Your task to perform on an android device: toggle notification dots Image 0: 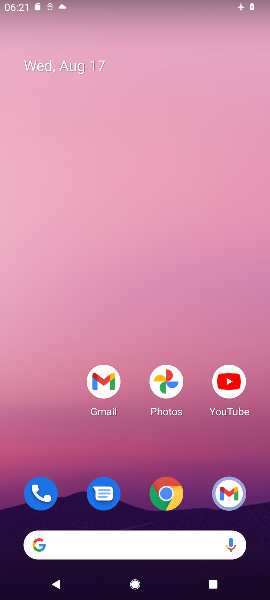
Step 0: press home button
Your task to perform on an android device: toggle notification dots Image 1: 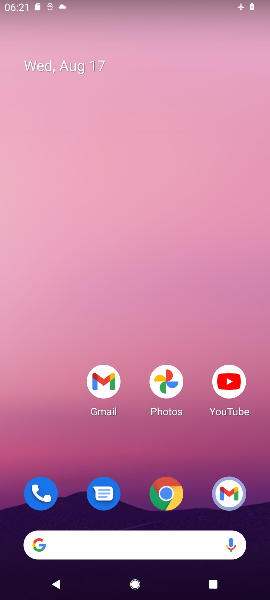
Step 1: drag from (138, 506) to (175, 67)
Your task to perform on an android device: toggle notification dots Image 2: 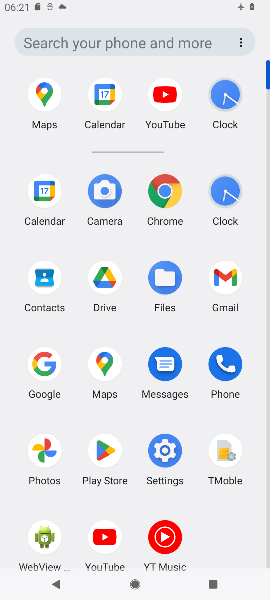
Step 2: click (163, 454)
Your task to perform on an android device: toggle notification dots Image 3: 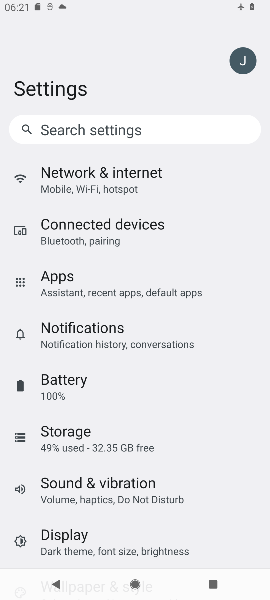
Step 3: click (67, 336)
Your task to perform on an android device: toggle notification dots Image 4: 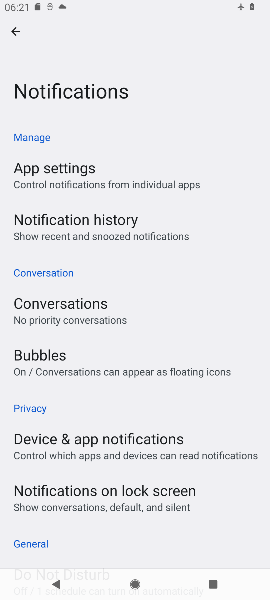
Step 4: drag from (161, 540) to (168, 189)
Your task to perform on an android device: toggle notification dots Image 5: 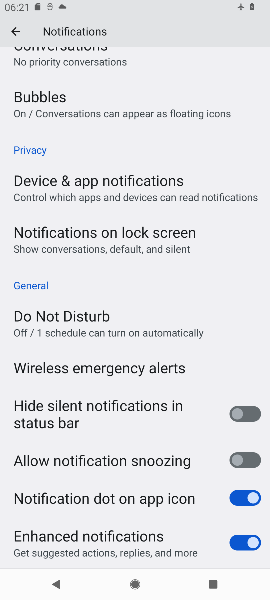
Step 5: click (257, 494)
Your task to perform on an android device: toggle notification dots Image 6: 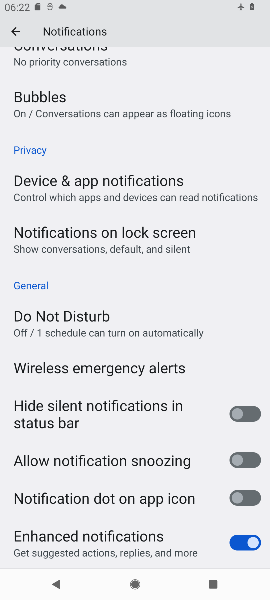
Step 6: task complete